Your task to perform on an android device: Open internet settings Image 0: 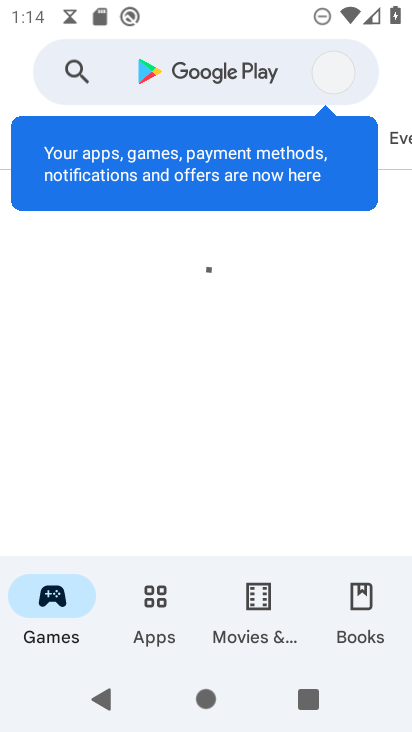
Step 0: press home button
Your task to perform on an android device: Open internet settings Image 1: 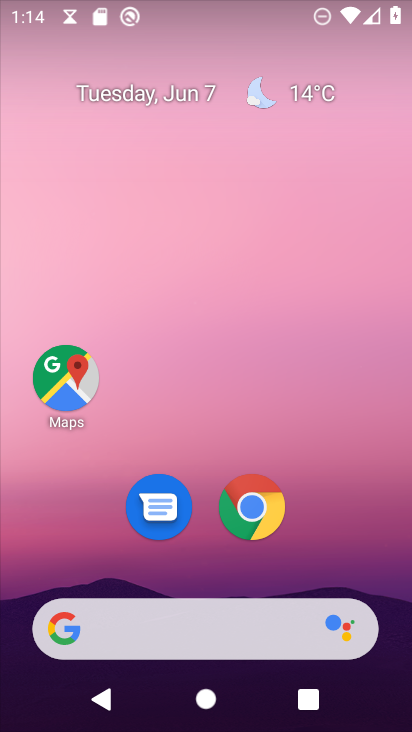
Step 1: drag from (331, 547) to (337, 8)
Your task to perform on an android device: Open internet settings Image 2: 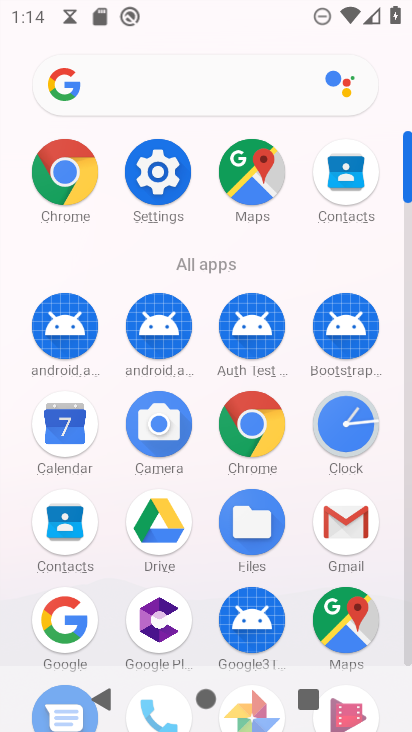
Step 2: click (148, 183)
Your task to perform on an android device: Open internet settings Image 3: 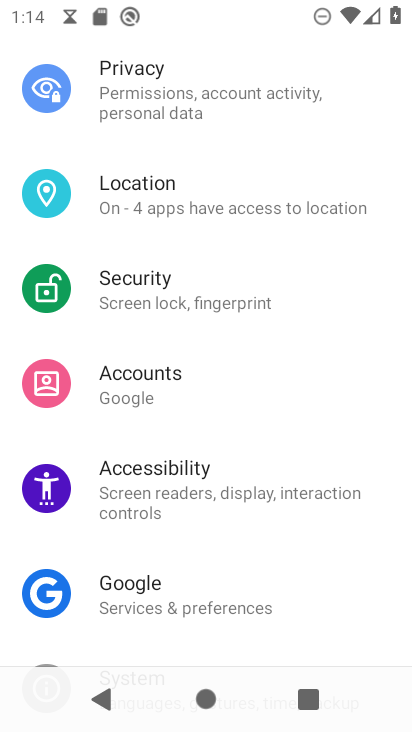
Step 3: drag from (191, 150) to (224, 574)
Your task to perform on an android device: Open internet settings Image 4: 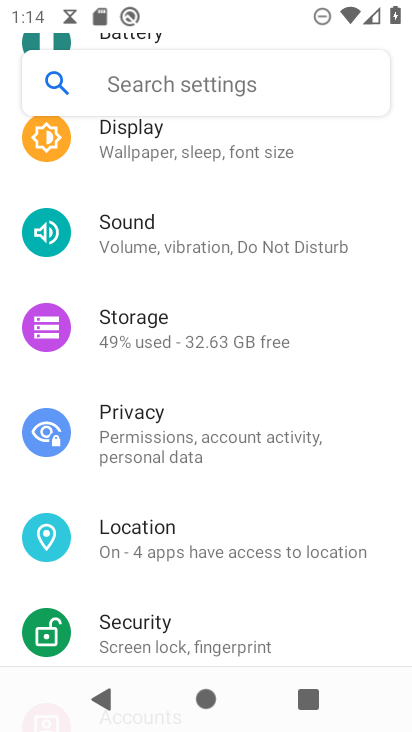
Step 4: drag from (278, 159) to (280, 563)
Your task to perform on an android device: Open internet settings Image 5: 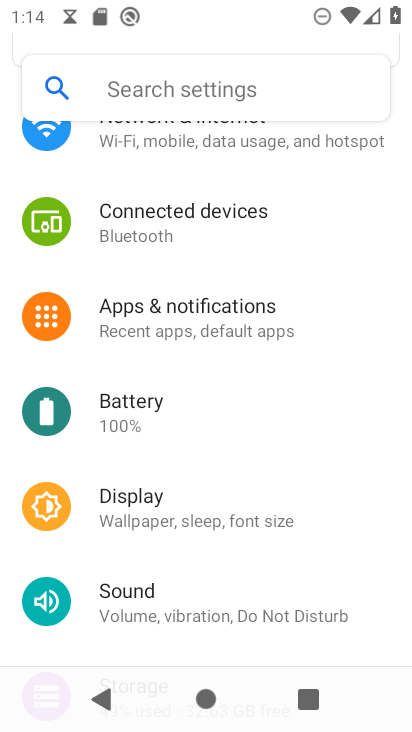
Step 5: drag from (222, 209) to (205, 545)
Your task to perform on an android device: Open internet settings Image 6: 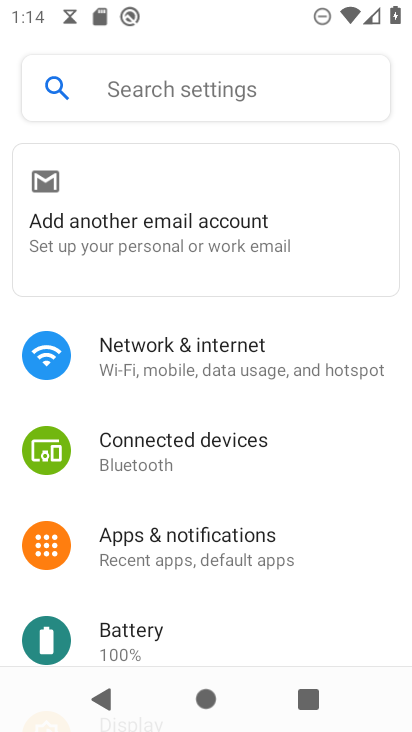
Step 6: click (202, 354)
Your task to perform on an android device: Open internet settings Image 7: 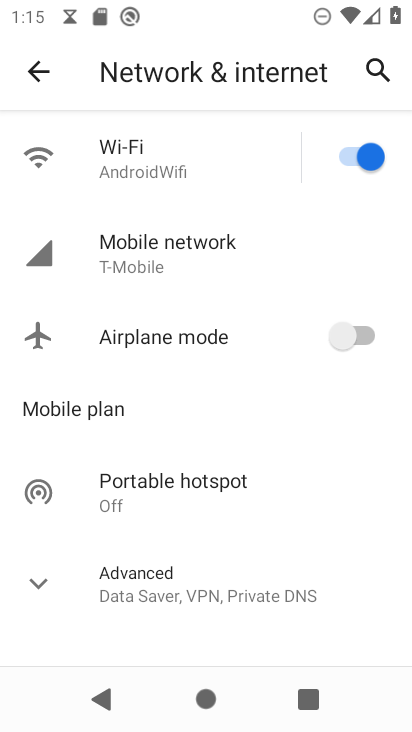
Step 7: click (121, 249)
Your task to perform on an android device: Open internet settings Image 8: 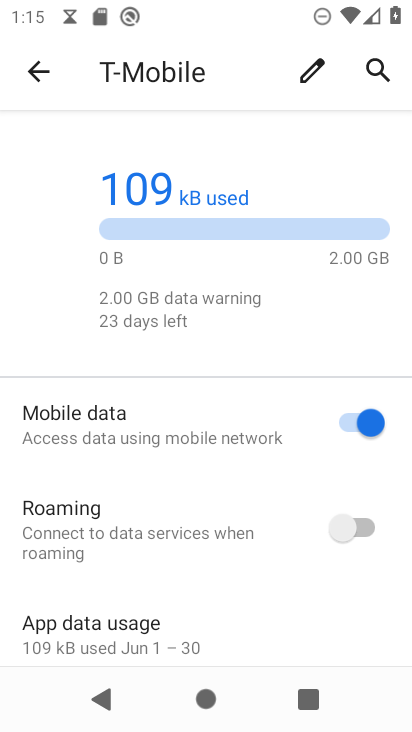
Step 8: task complete